Your task to perform on an android device: Open Youtube and go to "Your channel" Image 0: 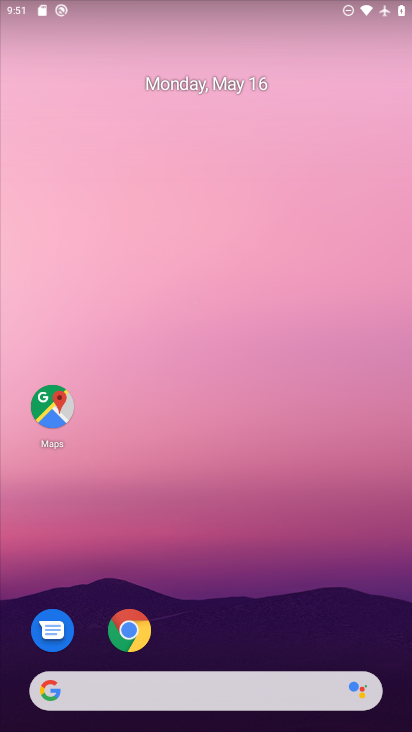
Step 0: drag from (229, 641) to (256, 127)
Your task to perform on an android device: Open Youtube and go to "Your channel" Image 1: 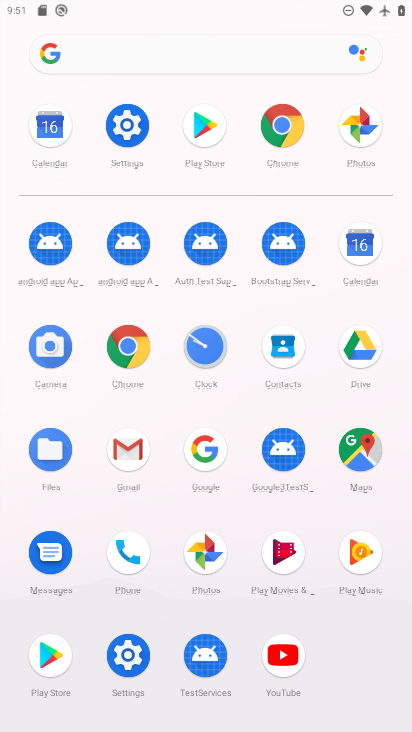
Step 1: click (276, 635)
Your task to perform on an android device: Open Youtube and go to "Your channel" Image 2: 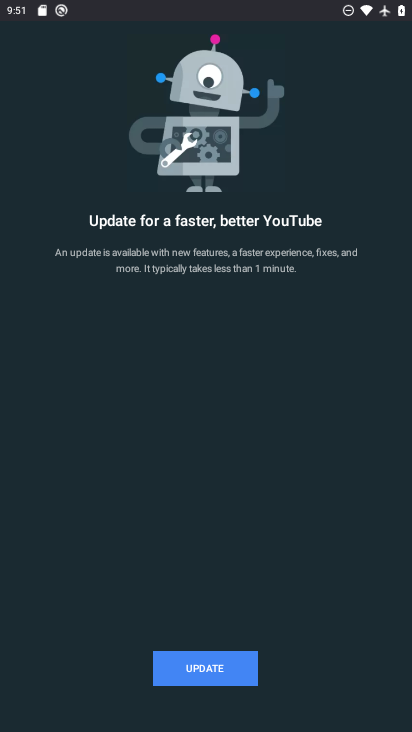
Step 2: click (190, 655)
Your task to perform on an android device: Open Youtube and go to "Your channel" Image 3: 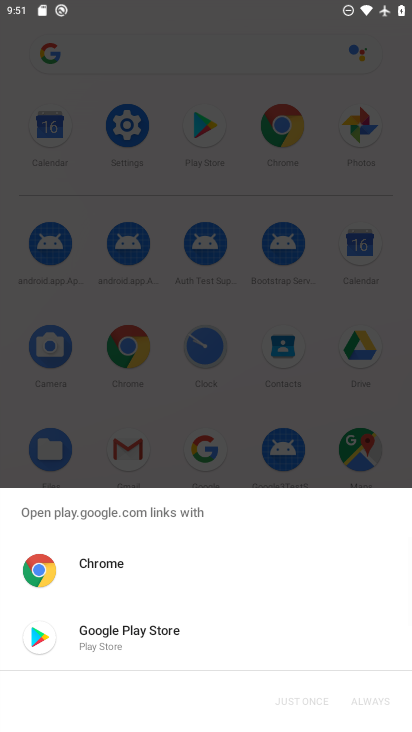
Step 3: click (114, 619)
Your task to perform on an android device: Open Youtube and go to "Your channel" Image 4: 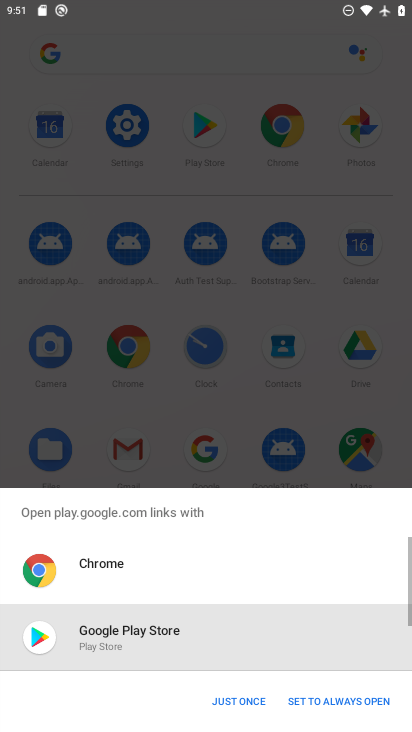
Step 4: click (253, 704)
Your task to perform on an android device: Open Youtube and go to "Your channel" Image 5: 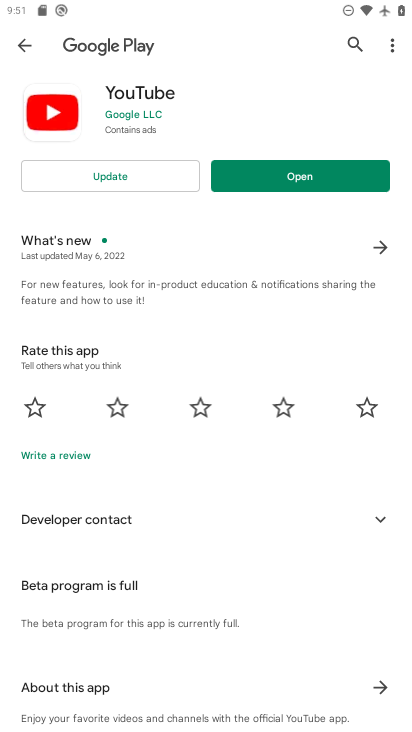
Step 5: click (123, 175)
Your task to perform on an android device: Open Youtube and go to "Your channel" Image 6: 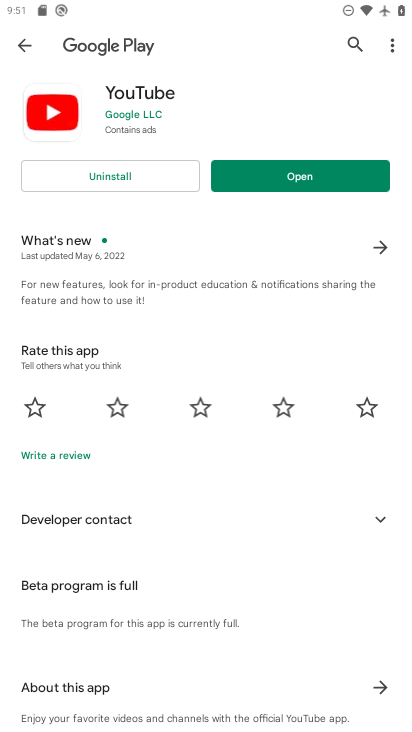
Step 6: click (334, 176)
Your task to perform on an android device: Open Youtube and go to "Your channel" Image 7: 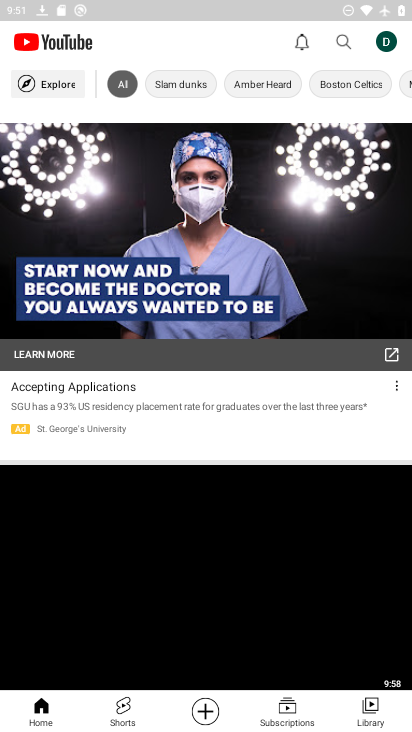
Step 7: click (387, 41)
Your task to perform on an android device: Open Youtube and go to "Your channel" Image 8: 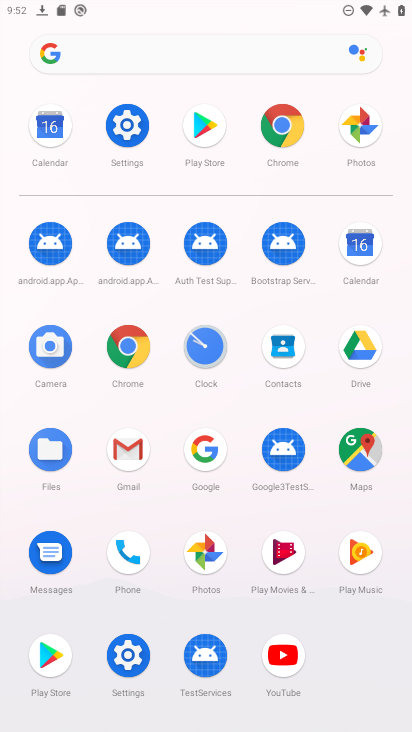
Step 8: click (289, 667)
Your task to perform on an android device: Open Youtube and go to "Your channel" Image 9: 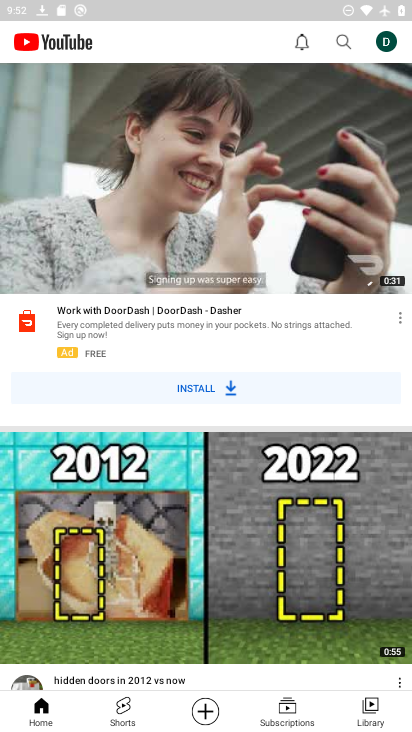
Step 9: click (379, 38)
Your task to perform on an android device: Open Youtube and go to "Your channel" Image 10: 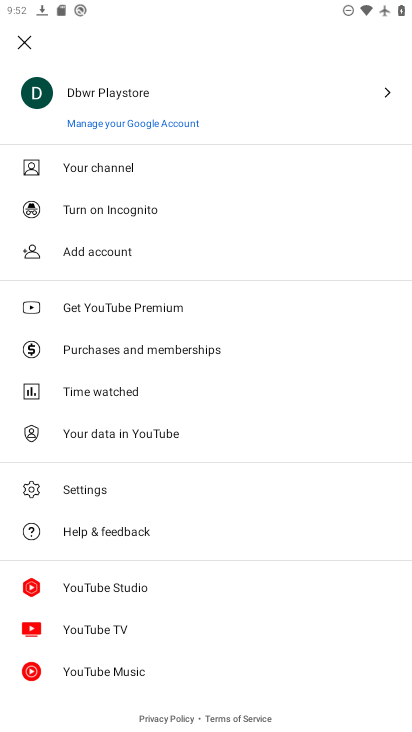
Step 10: click (99, 154)
Your task to perform on an android device: Open Youtube and go to "Your channel" Image 11: 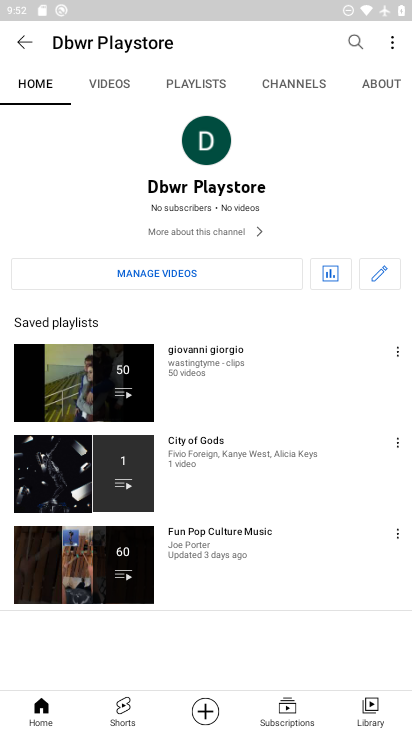
Step 11: task complete